Your task to perform on an android device: change the upload size in google photos Image 0: 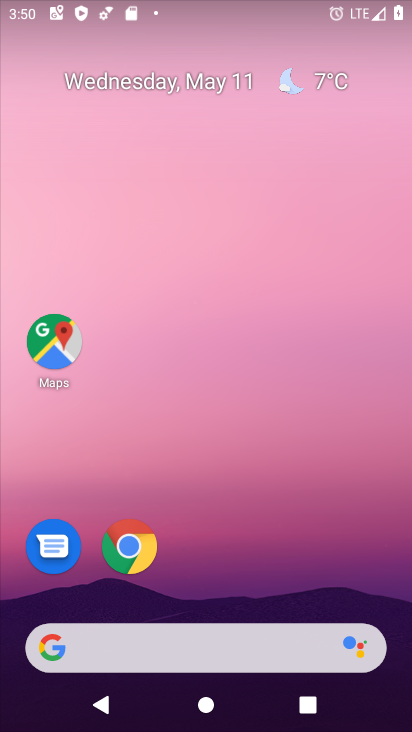
Step 0: drag from (226, 683) to (271, 92)
Your task to perform on an android device: change the upload size in google photos Image 1: 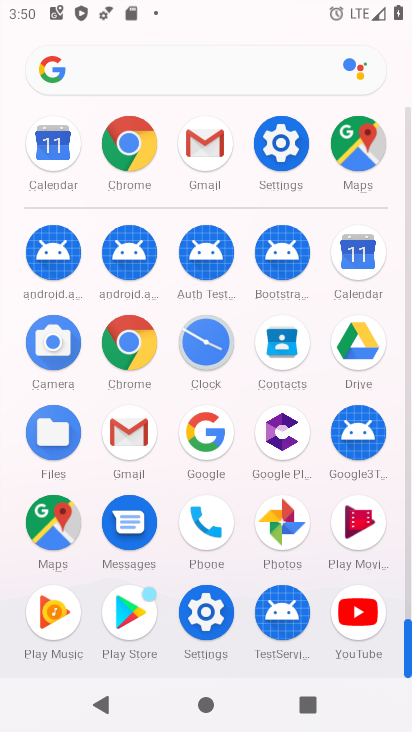
Step 1: click (276, 522)
Your task to perform on an android device: change the upload size in google photos Image 2: 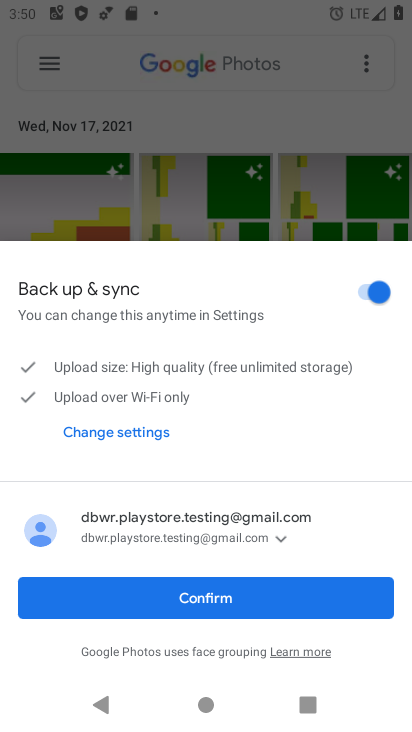
Step 2: click (300, 123)
Your task to perform on an android device: change the upload size in google photos Image 3: 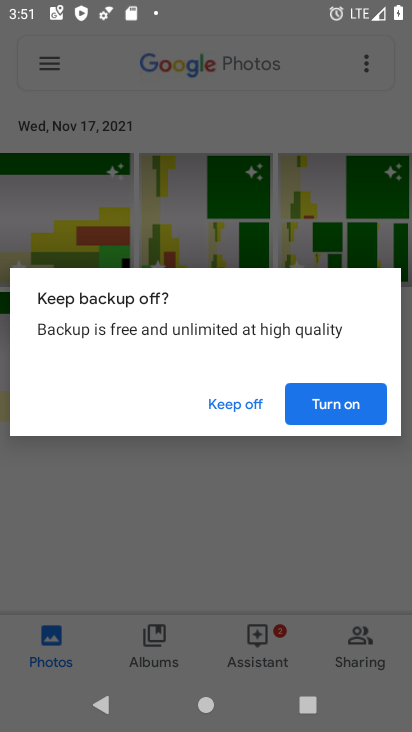
Step 3: click (329, 400)
Your task to perform on an android device: change the upload size in google photos Image 4: 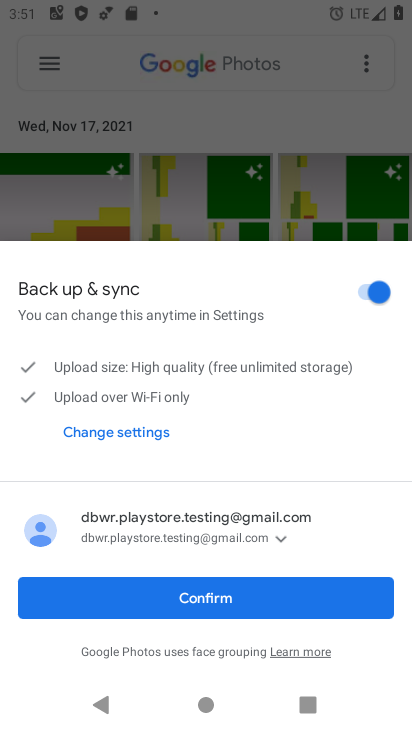
Step 4: click (225, 609)
Your task to perform on an android device: change the upload size in google photos Image 5: 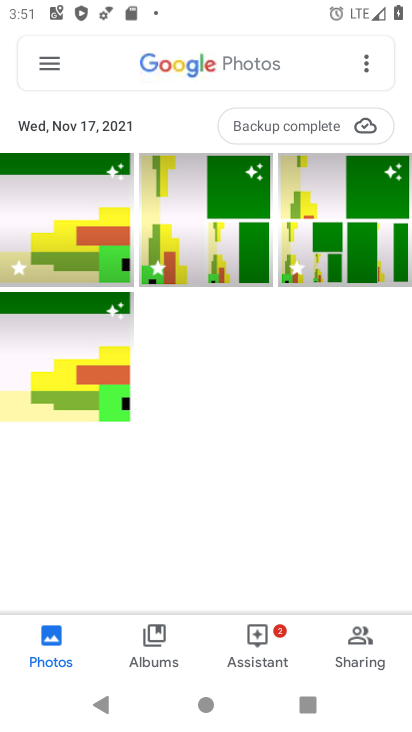
Step 5: click (49, 63)
Your task to perform on an android device: change the upload size in google photos Image 6: 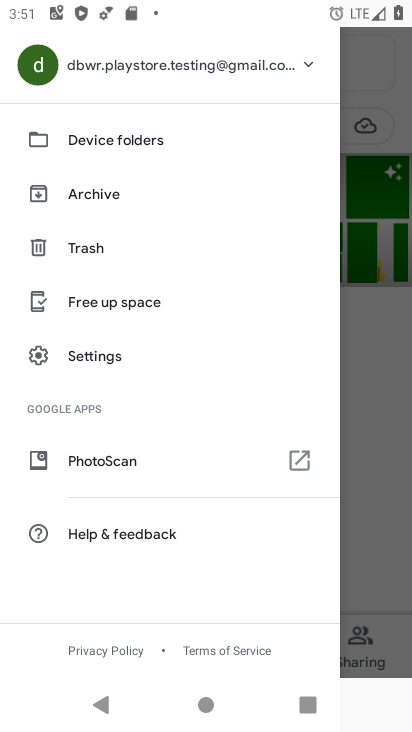
Step 6: drag from (189, 324) to (195, 673)
Your task to perform on an android device: change the upload size in google photos Image 7: 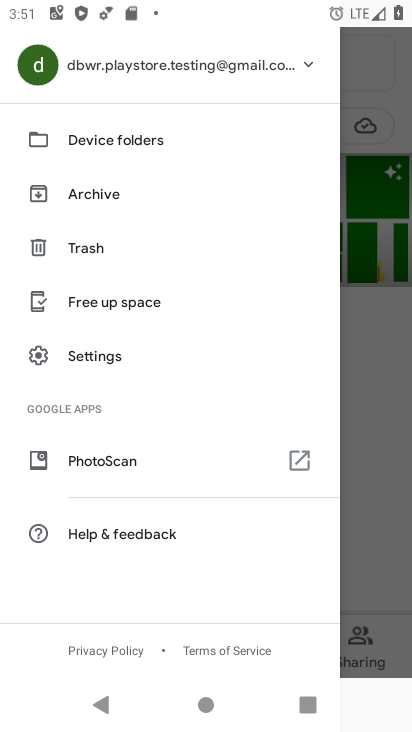
Step 7: click (163, 353)
Your task to perform on an android device: change the upload size in google photos Image 8: 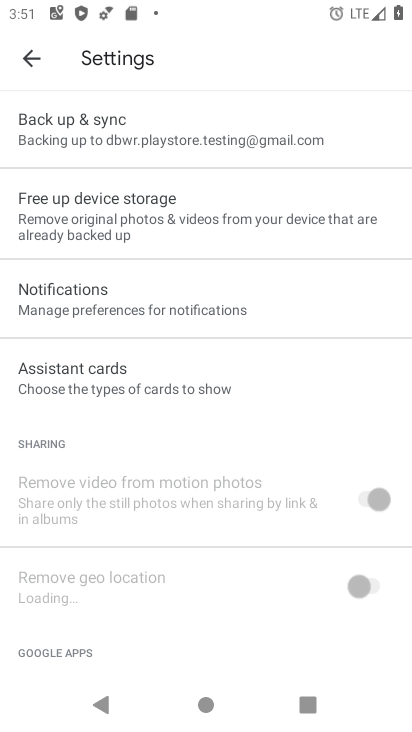
Step 8: click (219, 134)
Your task to perform on an android device: change the upload size in google photos Image 9: 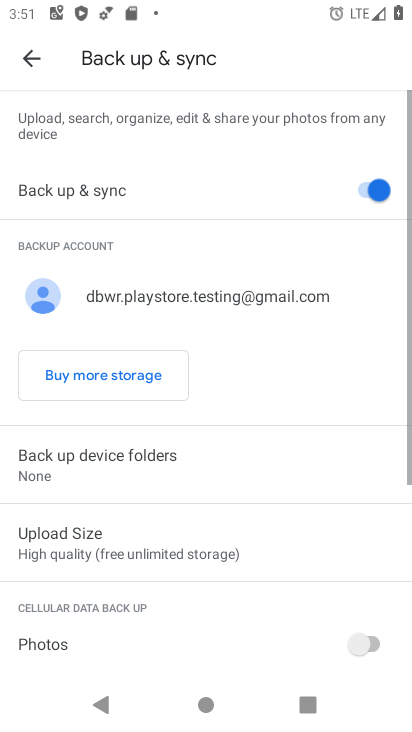
Step 9: drag from (226, 586) to (254, 335)
Your task to perform on an android device: change the upload size in google photos Image 10: 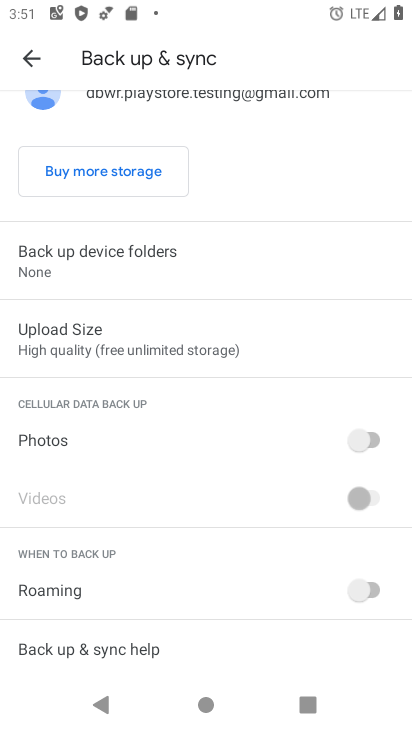
Step 10: click (175, 340)
Your task to perform on an android device: change the upload size in google photos Image 11: 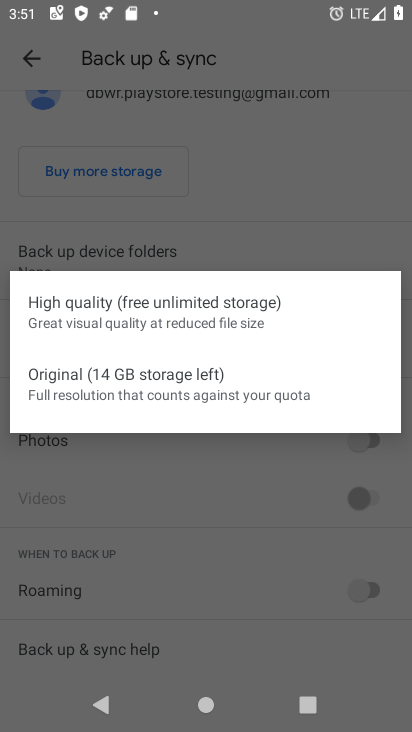
Step 11: click (179, 381)
Your task to perform on an android device: change the upload size in google photos Image 12: 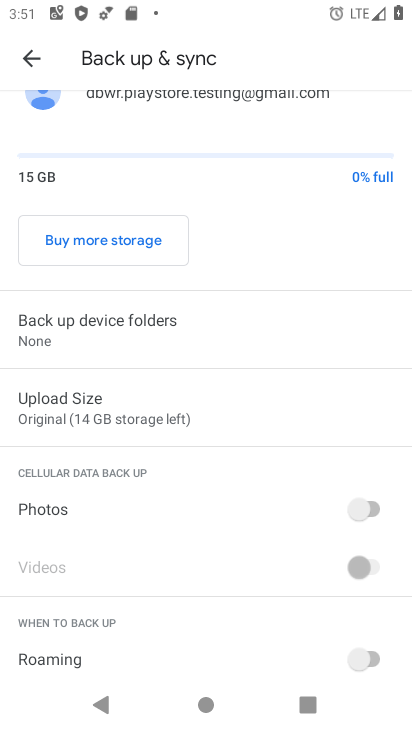
Step 12: task complete